Your task to perform on an android device: Open Chrome and go to settings Image 0: 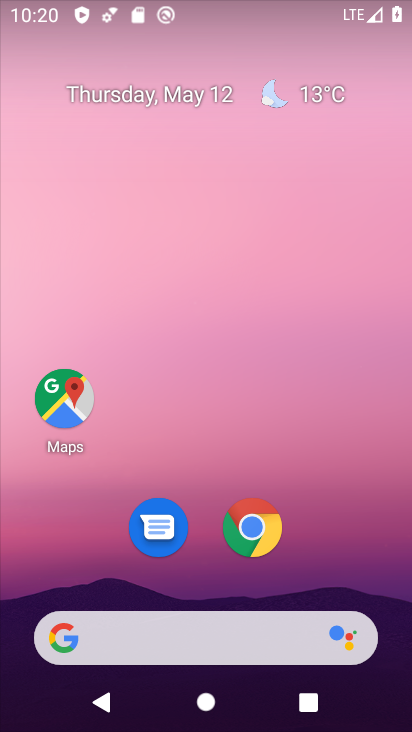
Step 0: click (258, 519)
Your task to perform on an android device: Open Chrome and go to settings Image 1: 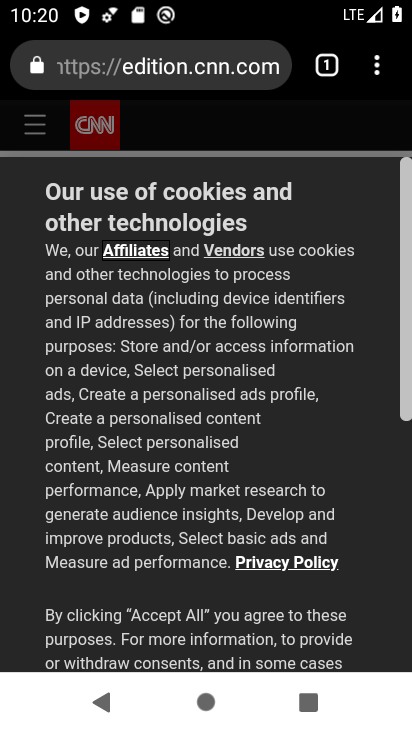
Step 1: click (377, 64)
Your task to perform on an android device: Open Chrome and go to settings Image 2: 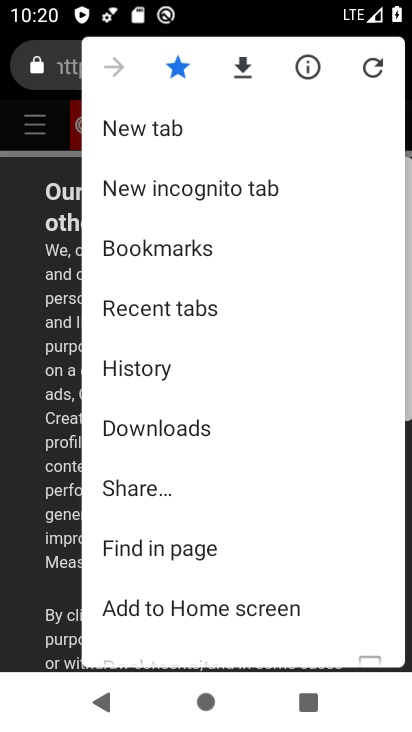
Step 2: drag from (164, 514) to (178, 383)
Your task to perform on an android device: Open Chrome and go to settings Image 3: 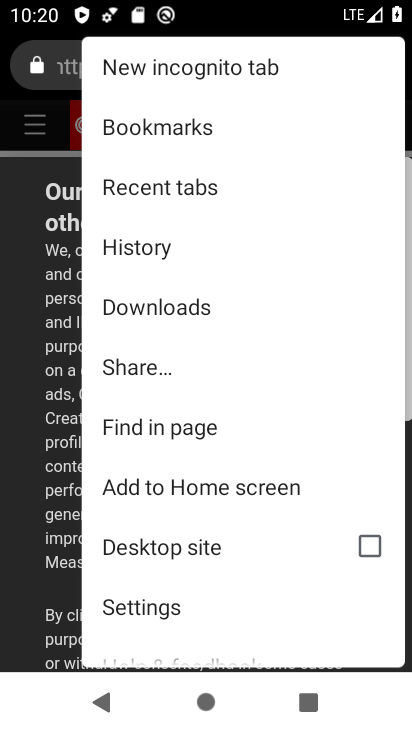
Step 3: click (129, 616)
Your task to perform on an android device: Open Chrome and go to settings Image 4: 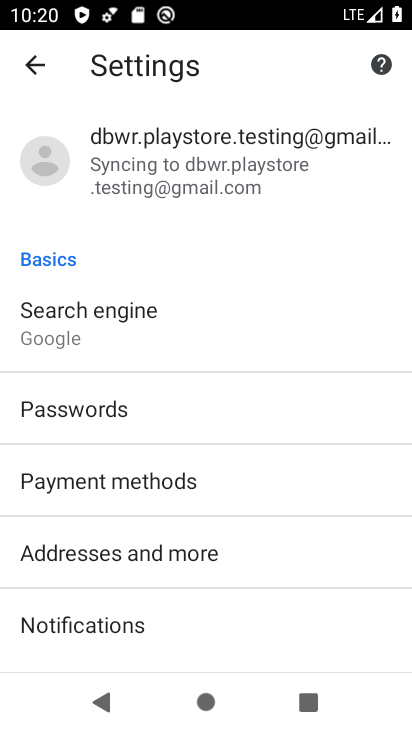
Step 4: task complete